Your task to perform on an android device: Find coffee shops on Maps Image 0: 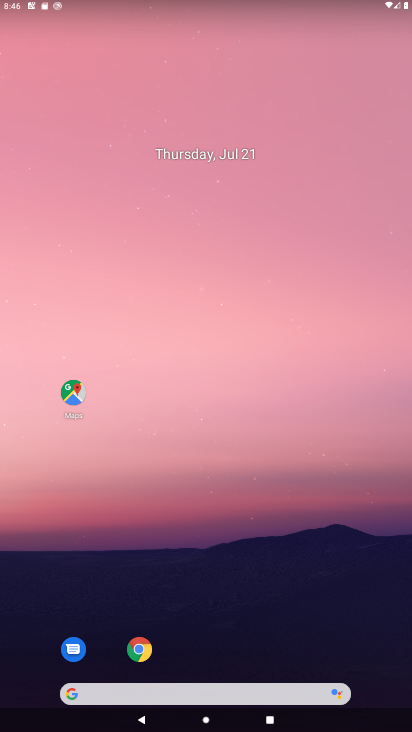
Step 0: click (72, 397)
Your task to perform on an android device: Find coffee shops on Maps Image 1: 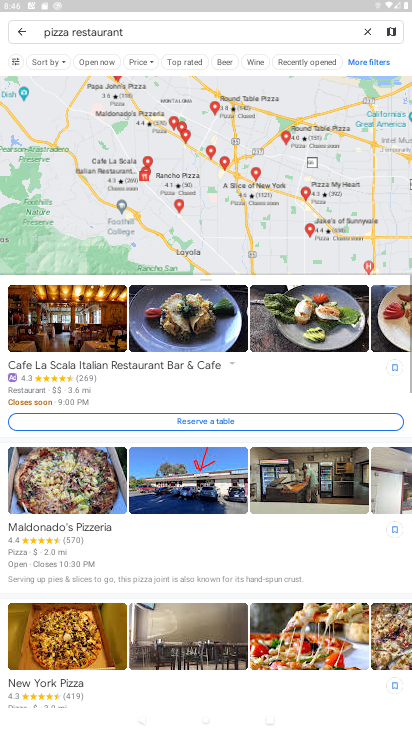
Step 1: click (361, 34)
Your task to perform on an android device: Find coffee shops on Maps Image 2: 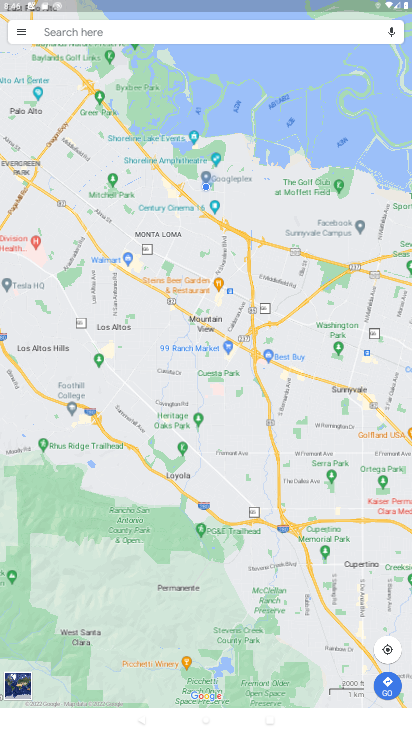
Step 2: click (178, 32)
Your task to perform on an android device: Find coffee shops on Maps Image 3: 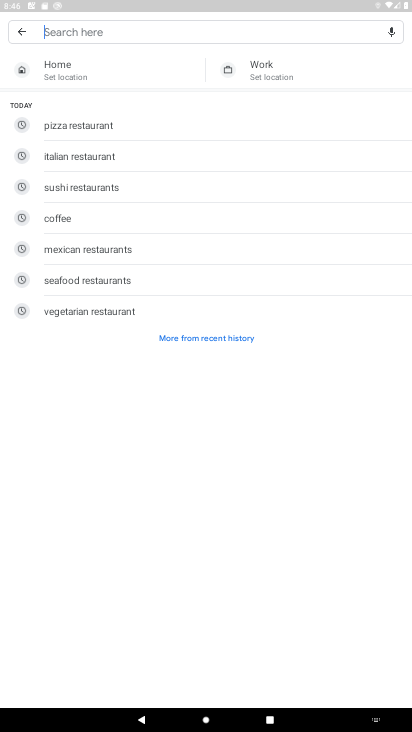
Step 3: click (68, 222)
Your task to perform on an android device: Find coffee shops on Maps Image 4: 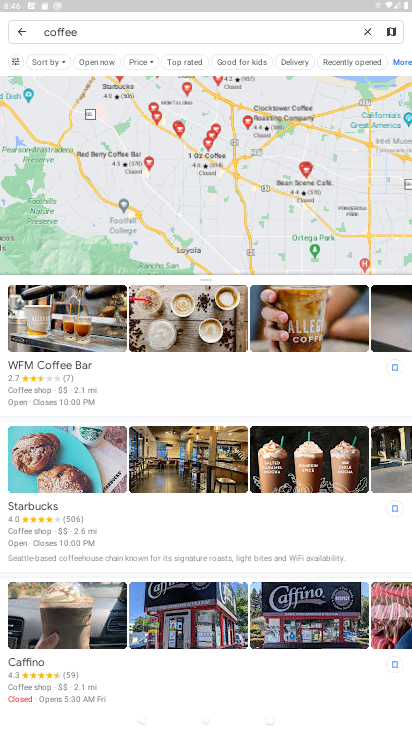
Step 4: task complete